Your task to perform on an android device: turn on location history Image 0: 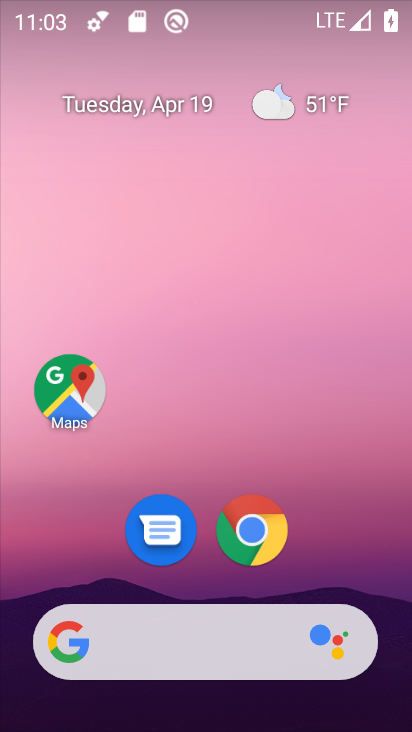
Step 0: drag from (191, 653) to (342, 129)
Your task to perform on an android device: turn on location history Image 1: 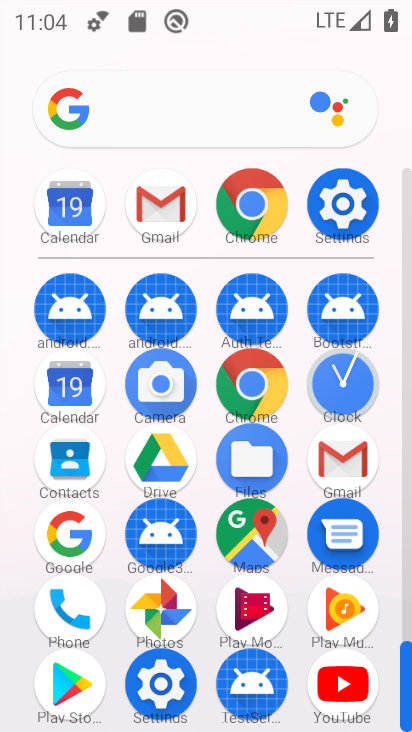
Step 1: click (339, 207)
Your task to perform on an android device: turn on location history Image 2: 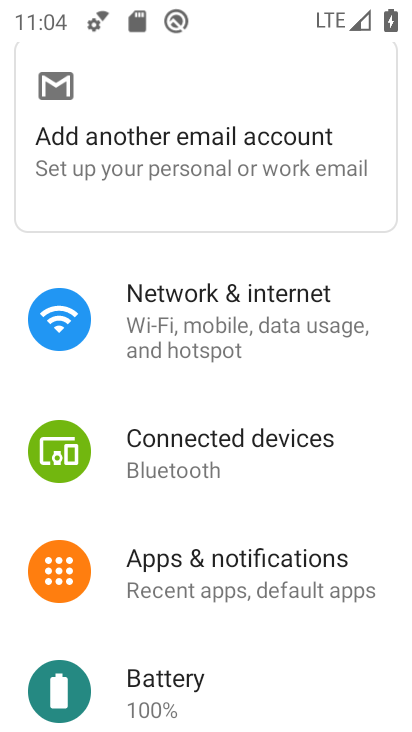
Step 2: drag from (170, 634) to (302, 243)
Your task to perform on an android device: turn on location history Image 3: 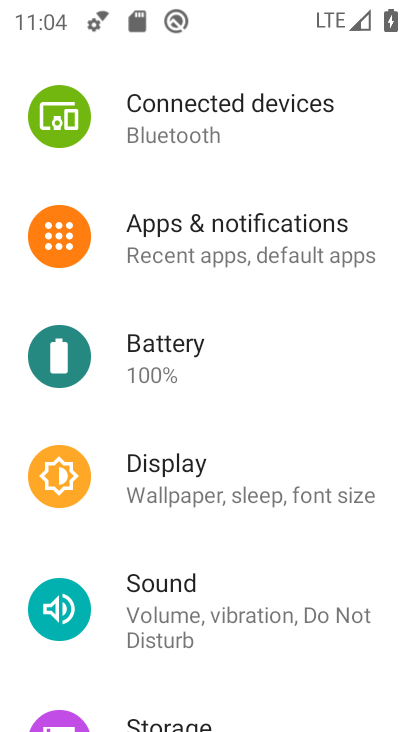
Step 3: drag from (187, 654) to (370, 118)
Your task to perform on an android device: turn on location history Image 4: 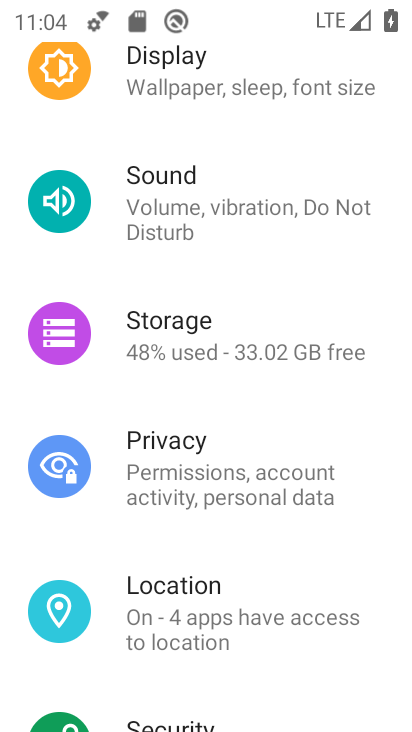
Step 4: click (191, 608)
Your task to perform on an android device: turn on location history Image 5: 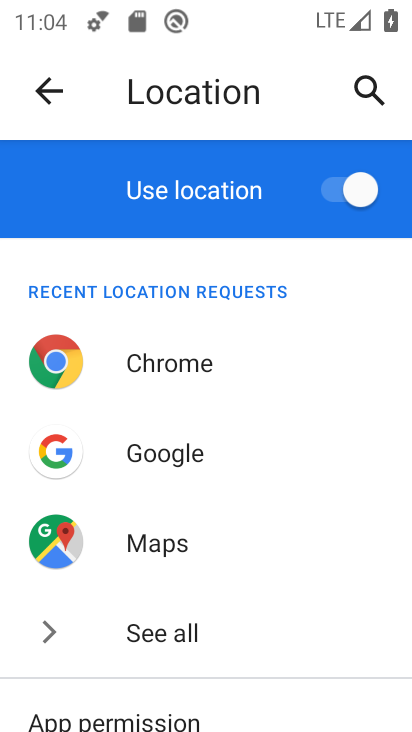
Step 5: drag from (177, 677) to (332, 137)
Your task to perform on an android device: turn on location history Image 6: 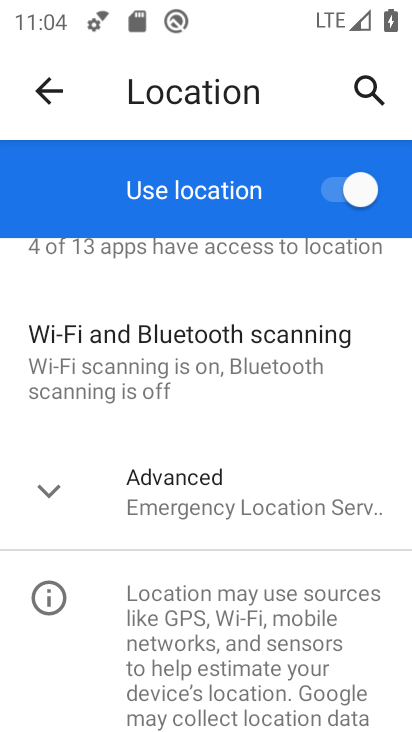
Step 6: click (188, 507)
Your task to perform on an android device: turn on location history Image 7: 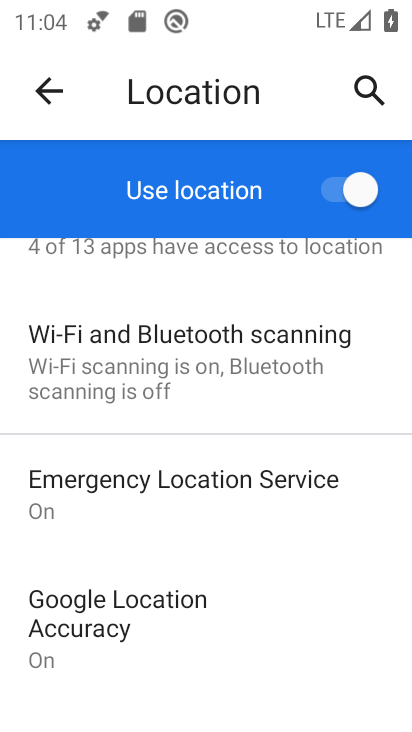
Step 7: drag from (178, 654) to (355, 264)
Your task to perform on an android device: turn on location history Image 8: 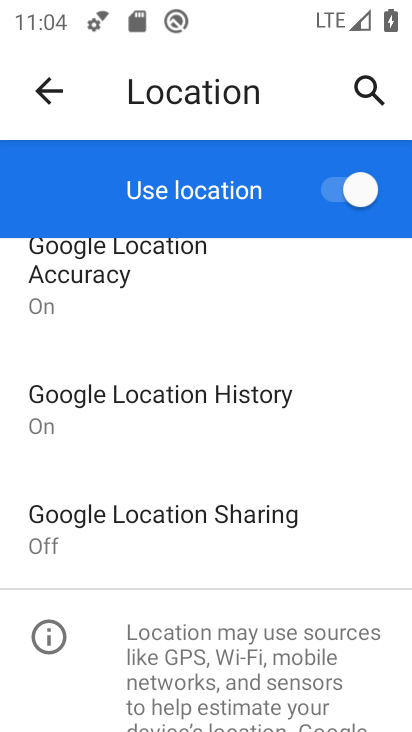
Step 8: click (168, 400)
Your task to perform on an android device: turn on location history Image 9: 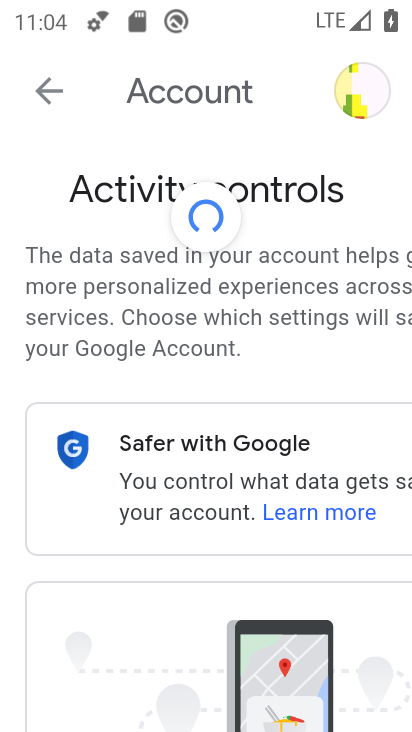
Step 9: task complete